Your task to perform on an android device: manage bookmarks in the chrome app Image 0: 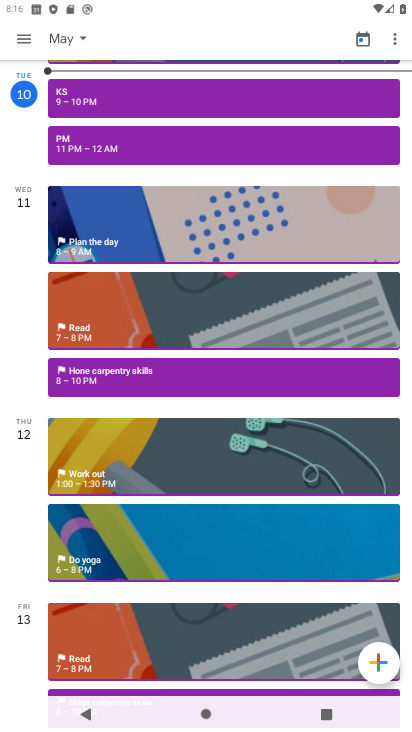
Step 0: press home button
Your task to perform on an android device: manage bookmarks in the chrome app Image 1: 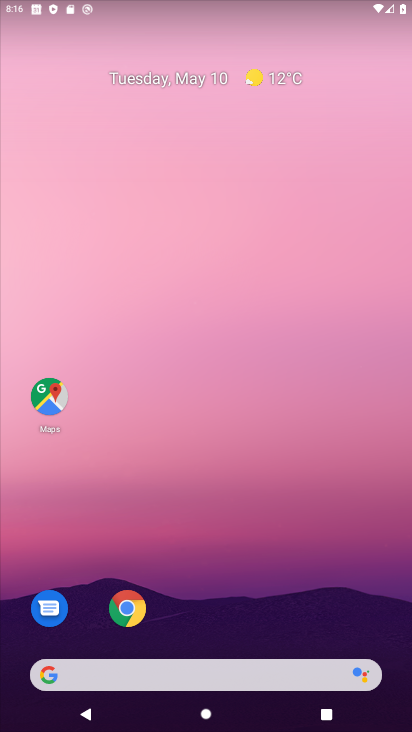
Step 1: click (129, 618)
Your task to perform on an android device: manage bookmarks in the chrome app Image 2: 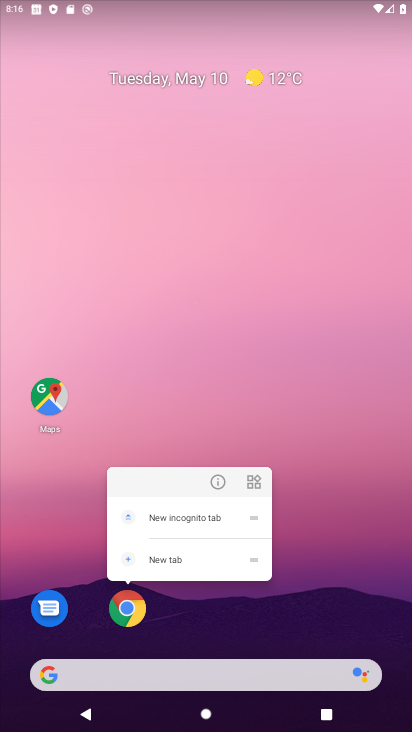
Step 2: click (129, 618)
Your task to perform on an android device: manage bookmarks in the chrome app Image 3: 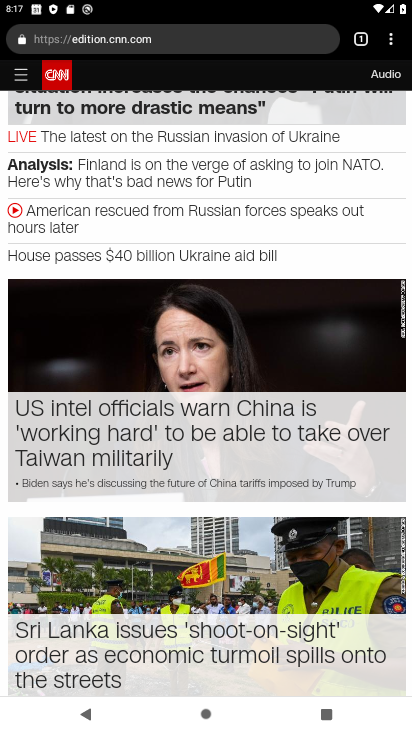
Step 3: click (394, 45)
Your task to perform on an android device: manage bookmarks in the chrome app Image 4: 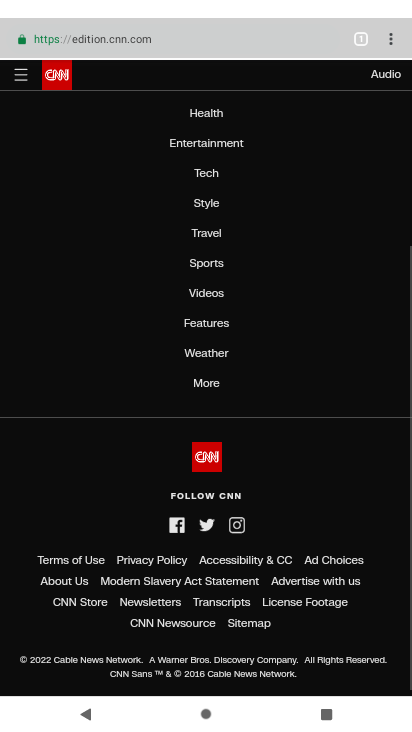
Step 4: drag from (394, 45) to (280, 146)
Your task to perform on an android device: manage bookmarks in the chrome app Image 5: 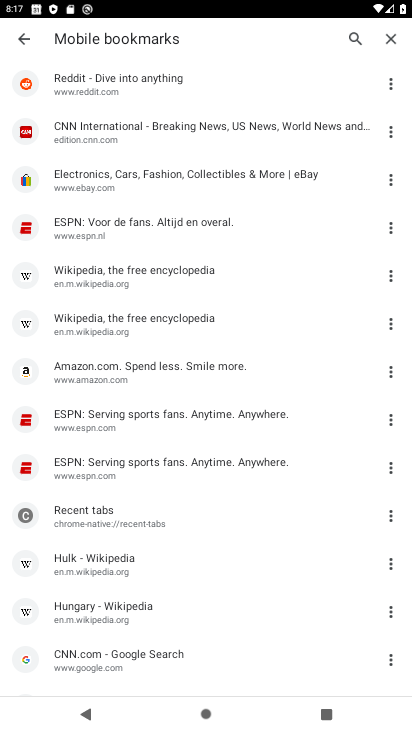
Step 5: click (394, 84)
Your task to perform on an android device: manage bookmarks in the chrome app Image 6: 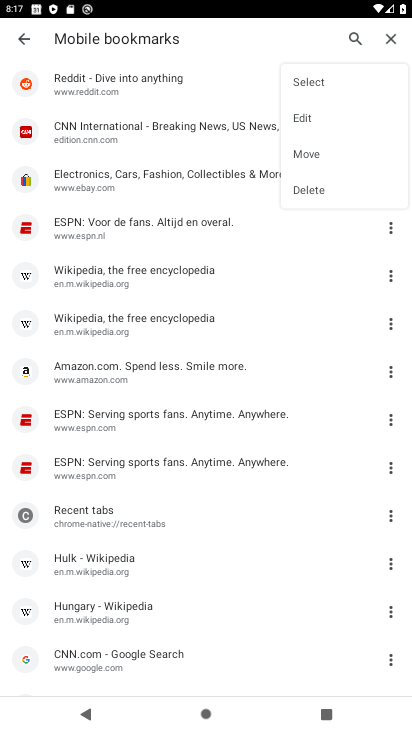
Step 6: click (319, 186)
Your task to perform on an android device: manage bookmarks in the chrome app Image 7: 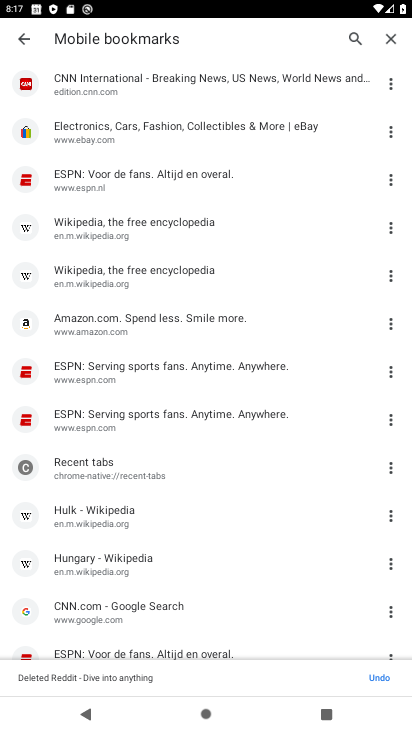
Step 7: task complete